Your task to perform on an android device: Search for Mexican restaurants on Maps Image 0: 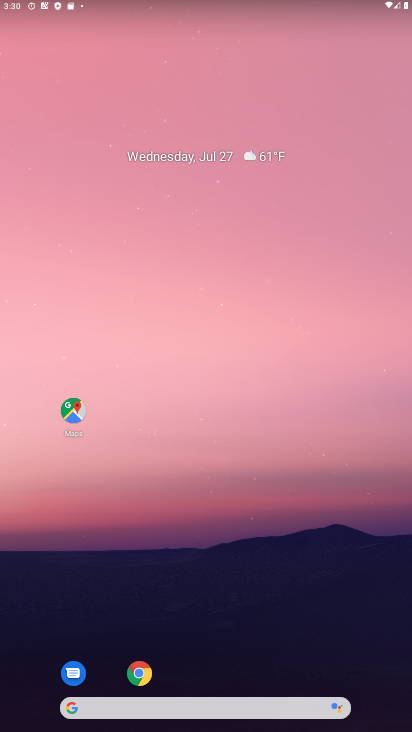
Step 0: click (61, 419)
Your task to perform on an android device: Search for Mexican restaurants on Maps Image 1: 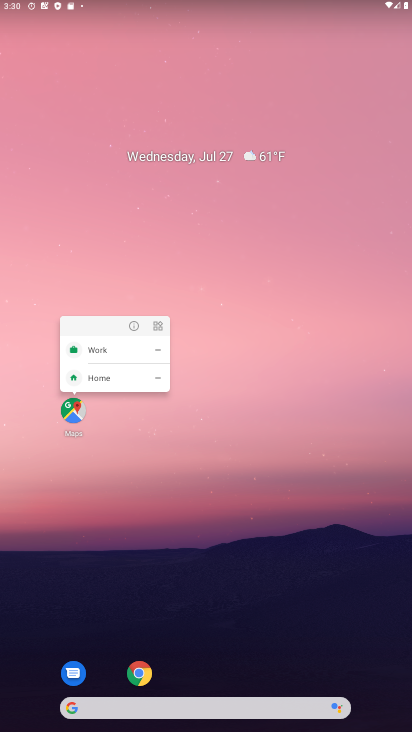
Step 1: click (64, 415)
Your task to perform on an android device: Search for Mexican restaurants on Maps Image 2: 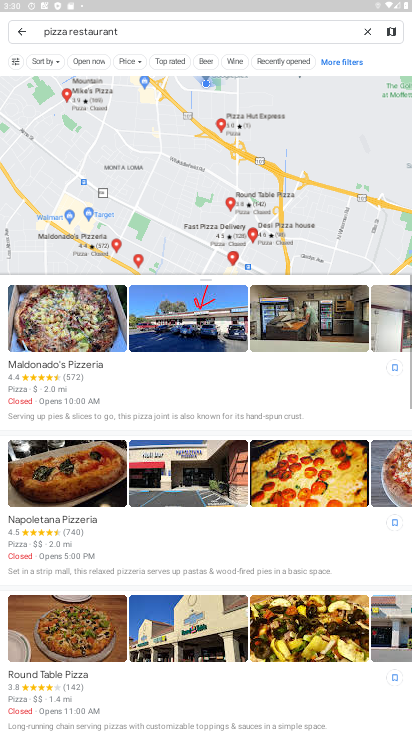
Step 2: click (22, 30)
Your task to perform on an android device: Search for Mexican restaurants on Maps Image 3: 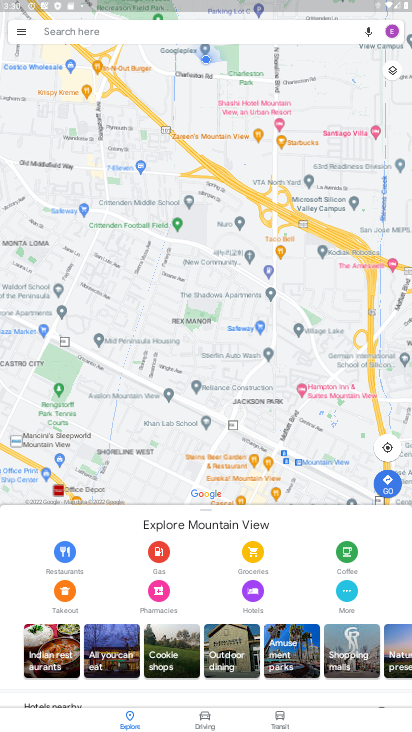
Step 3: click (57, 15)
Your task to perform on an android device: Search for Mexican restaurants on Maps Image 4: 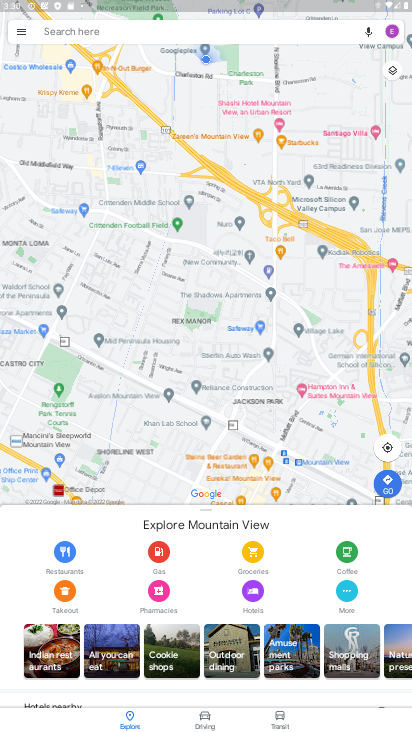
Step 4: click (60, 27)
Your task to perform on an android device: Search for Mexican restaurants on Maps Image 5: 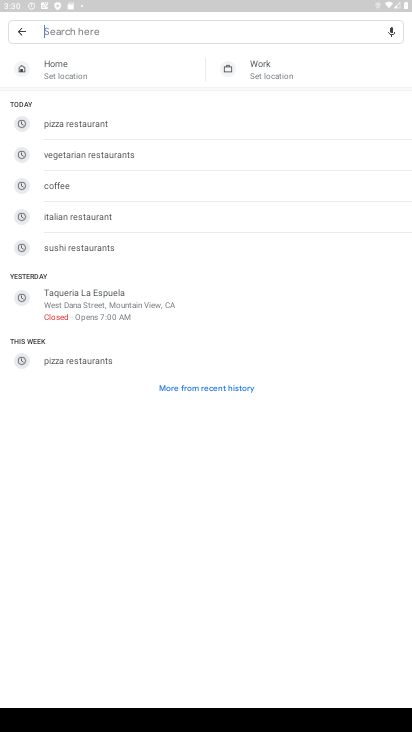
Step 5: type "Mexican restaurant"
Your task to perform on an android device: Search for Mexican restaurants on Maps Image 6: 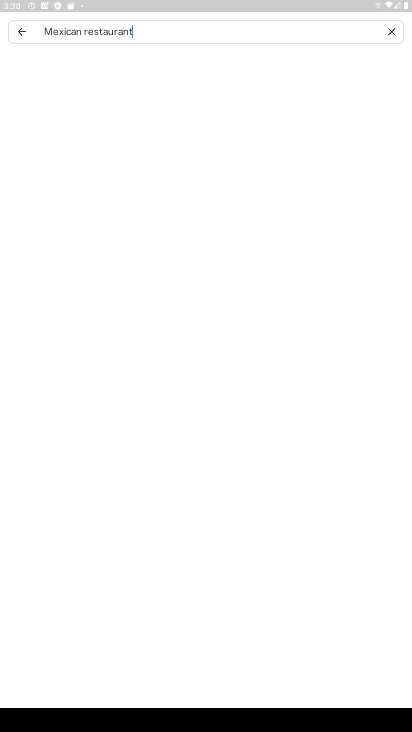
Step 6: type ""
Your task to perform on an android device: Search for Mexican restaurants on Maps Image 7: 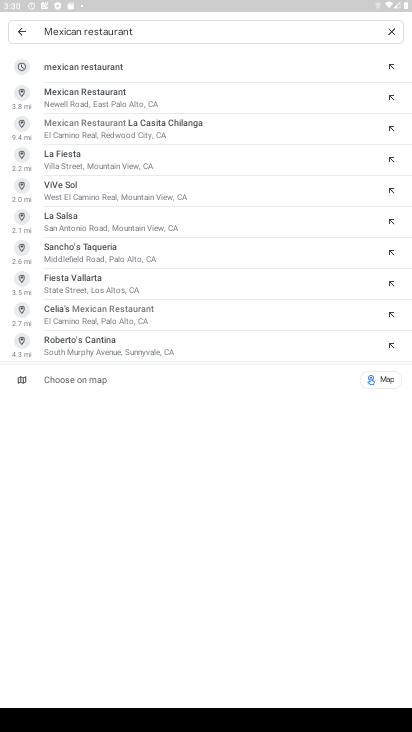
Step 7: type ""
Your task to perform on an android device: Search for Mexican restaurants on Maps Image 8: 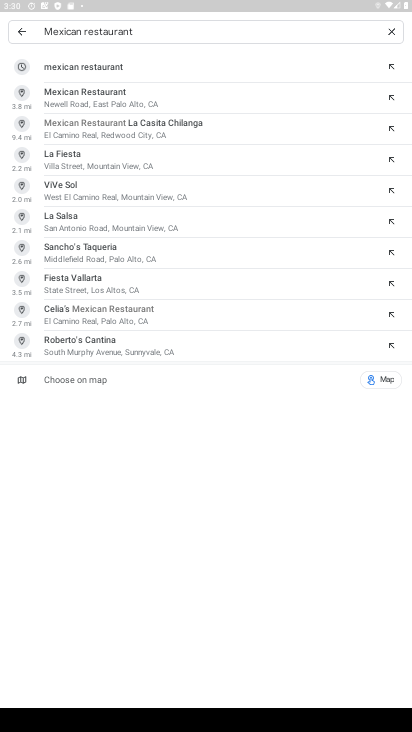
Step 8: type ""
Your task to perform on an android device: Search for Mexican restaurants on Maps Image 9: 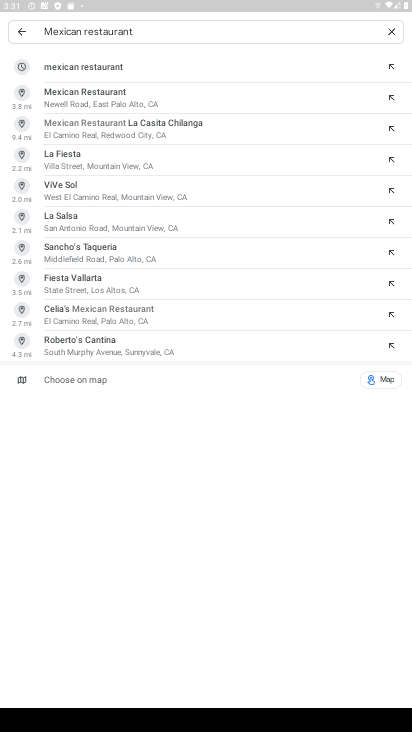
Step 9: task complete